Your task to perform on an android device: Open Youtube and go to "Your channel" Image 0: 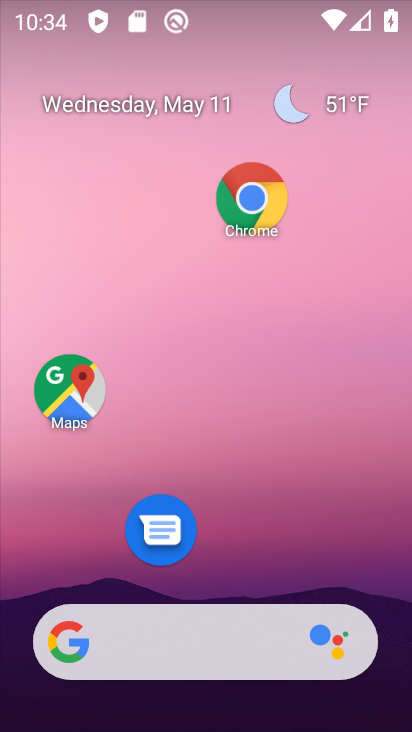
Step 0: click (247, 15)
Your task to perform on an android device: Open Youtube and go to "Your channel" Image 1: 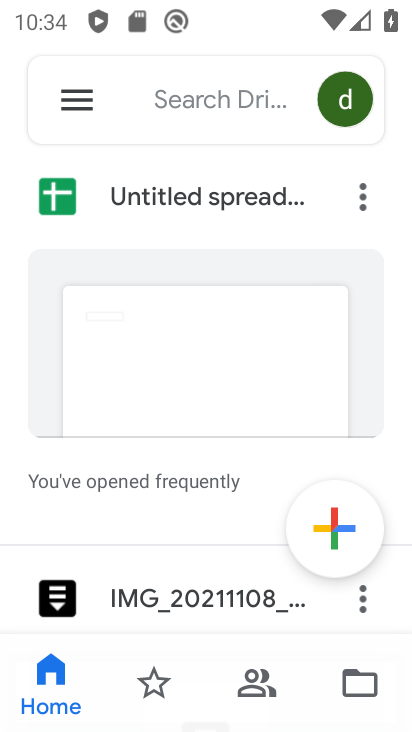
Step 1: press home button
Your task to perform on an android device: Open Youtube and go to "Your channel" Image 2: 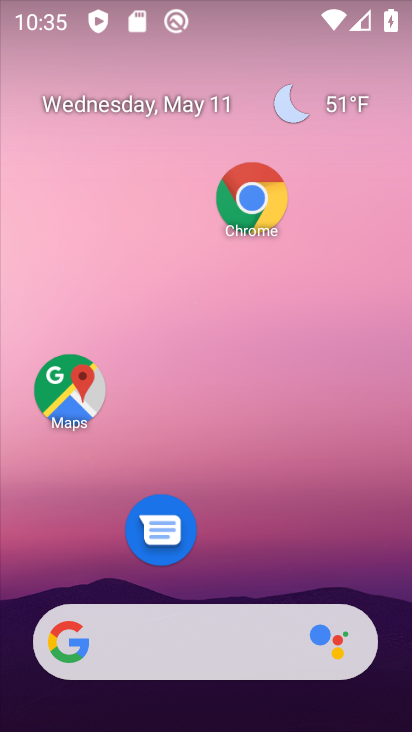
Step 2: drag from (186, 105) to (409, 149)
Your task to perform on an android device: Open Youtube and go to "Your channel" Image 3: 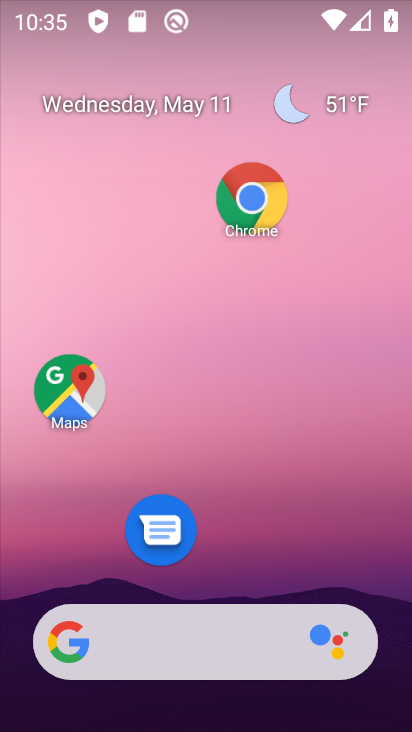
Step 3: click (250, 406)
Your task to perform on an android device: Open Youtube and go to "Your channel" Image 4: 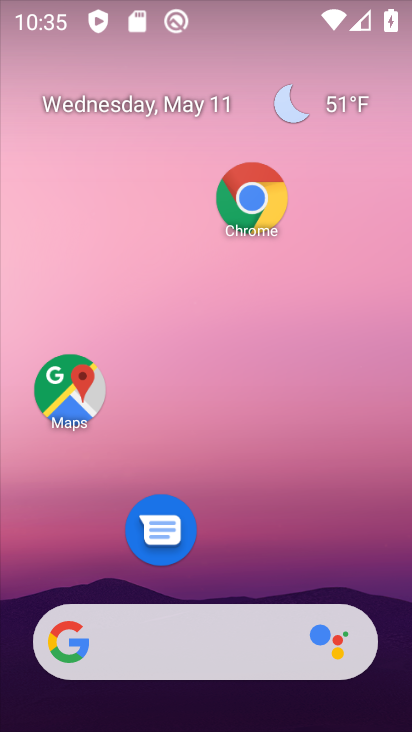
Step 4: drag from (303, 538) to (292, 0)
Your task to perform on an android device: Open Youtube and go to "Your channel" Image 5: 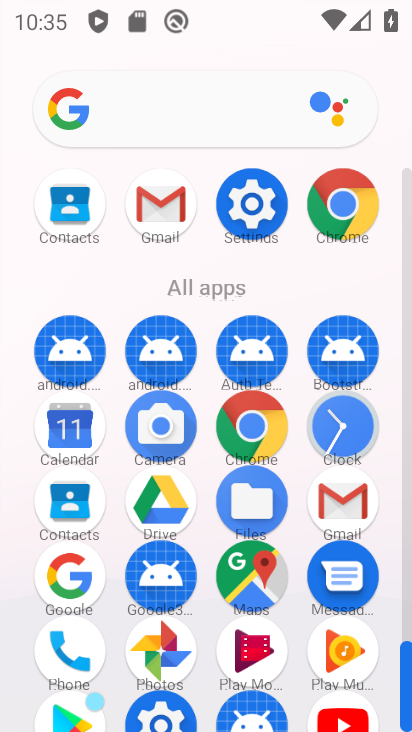
Step 5: drag from (305, 644) to (307, 394)
Your task to perform on an android device: Open Youtube and go to "Your channel" Image 6: 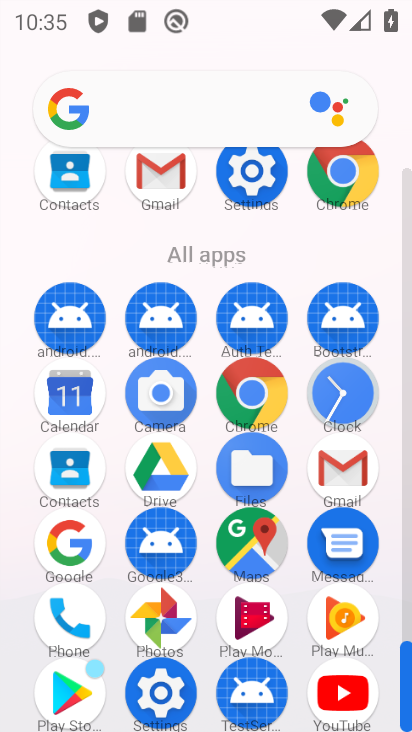
Step 6: click (331, 684)
Your task to perform on an android device: Open Youtube and go to "Your channel" Image 7: 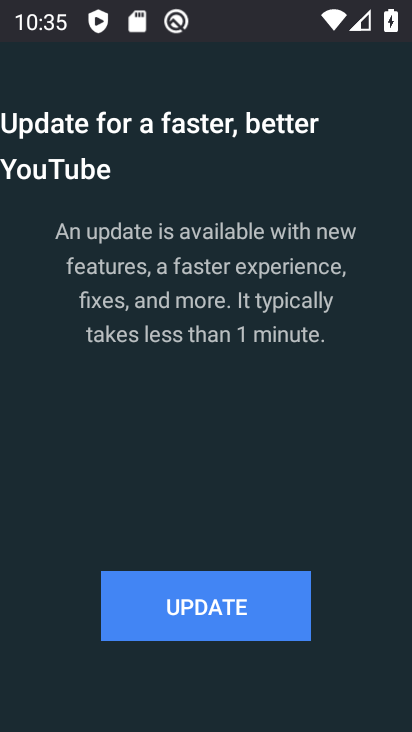
Step 7: click (254, 614)
Your task to perform on an android device: Open Youtube and go to "Your channel" Image 8: 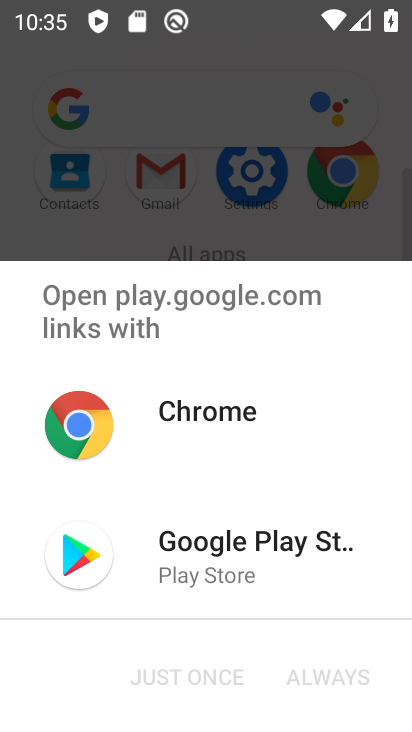
Step 8: click (198, 566)
Your task to perform on an android device: Open Youtube and go to "Your channel" Image 9: 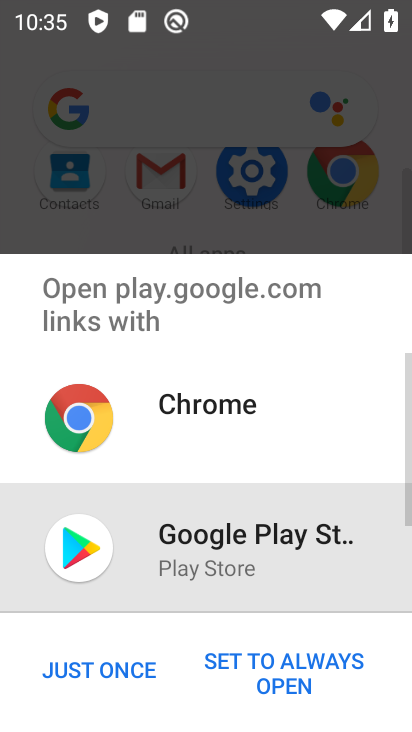
Step 9: click (319, 673)
Your task to perform on an android device: Open Youtube and go to "Your channel" Image 10: 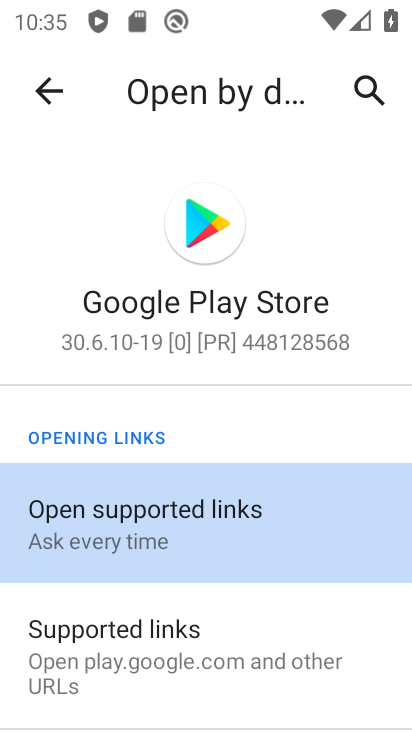
Step 10: click (152, 549)
Your task to perform on an android device: Open Youtube and go to "Your channel" Image 11: 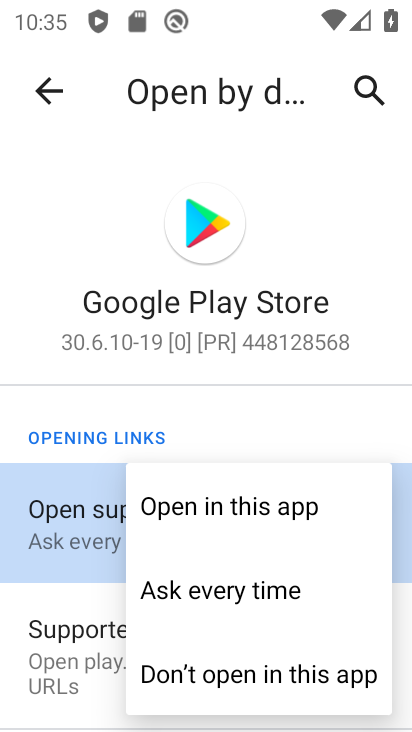
Step 11: click (178, 524)
Your task to perform on an android device: Open Youtube and go to "Your channel" Image 12: 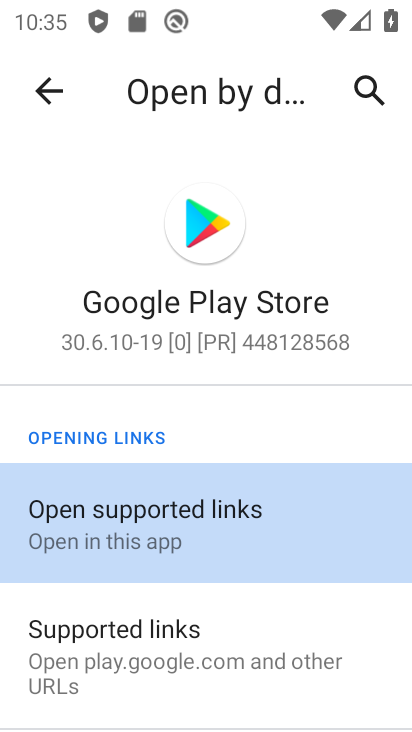
Step 12: click (46, 89)
Your task to perform on an android device: Open Youtube and go to "Your channel" Image 13: 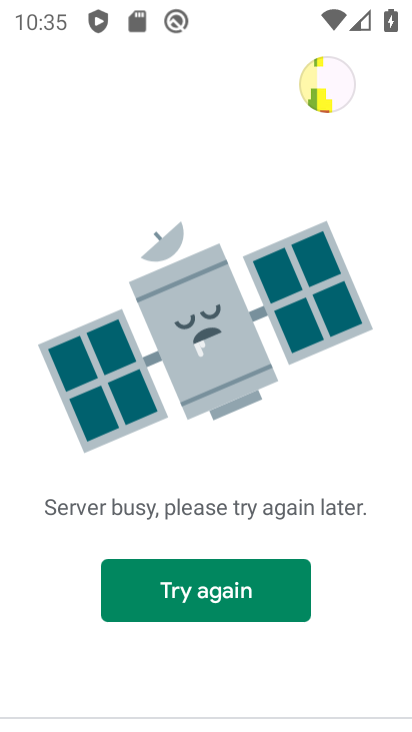
Step 13: click (172, 606)
Your task to perform on an android device: Open Youtube and go to "Your channel" Image 14: 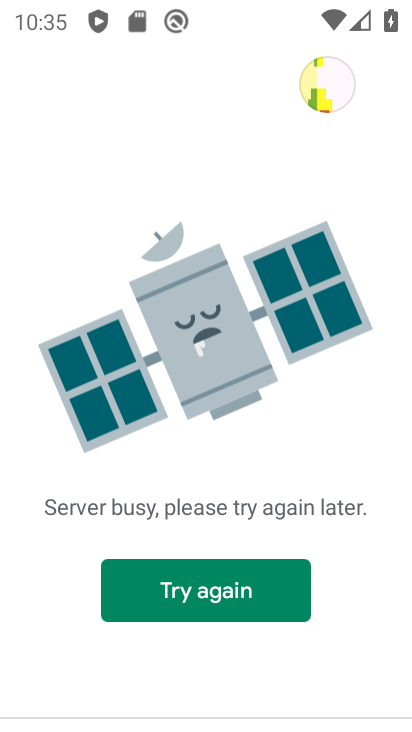
Step 14: click (172, 606)
Your task to perform on an android device: Open Youtube and go to "Your channel" Image 15: 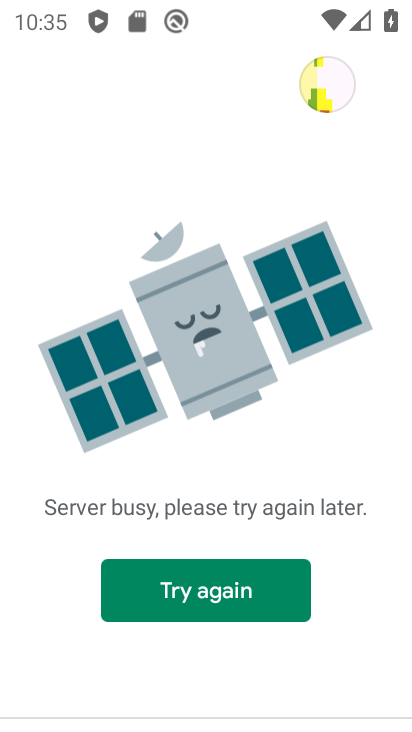
Step 15: click (172, 606)
Your task to perform on an android device: Open Youtube and go to "Your channel" Image 16: 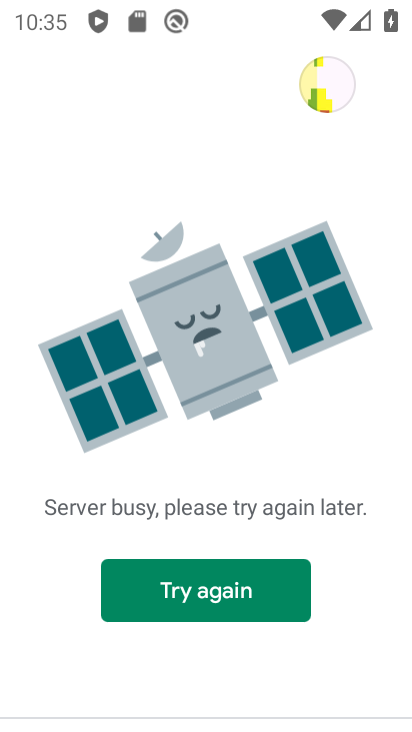
Step 16: task complete